Your task to perform on an android device: toggle airplane mode Image 0: 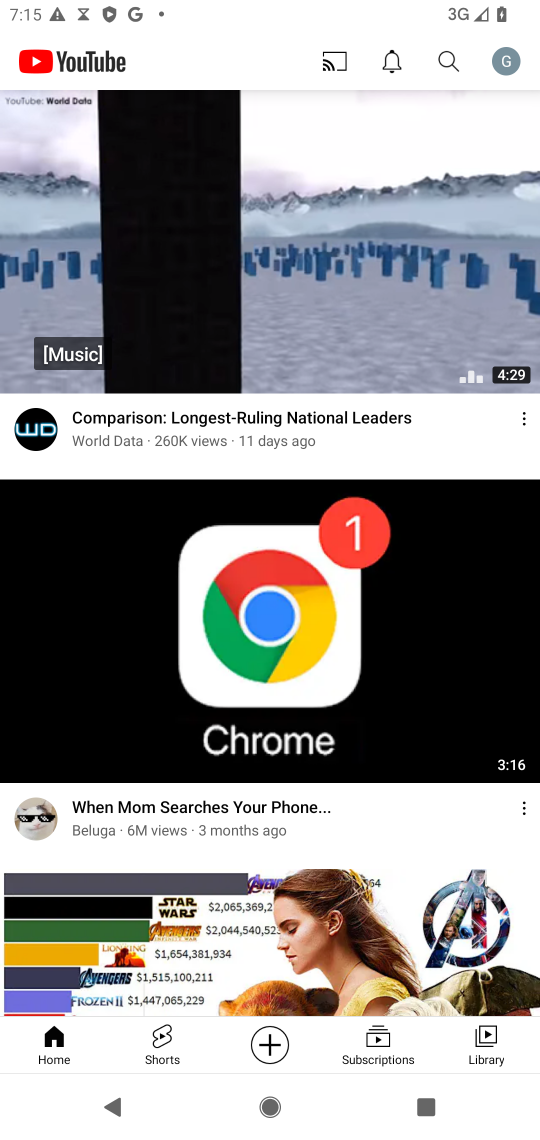
Step 0: press home button
Your task to perform on an android device: toggle airplane mode Image 1: 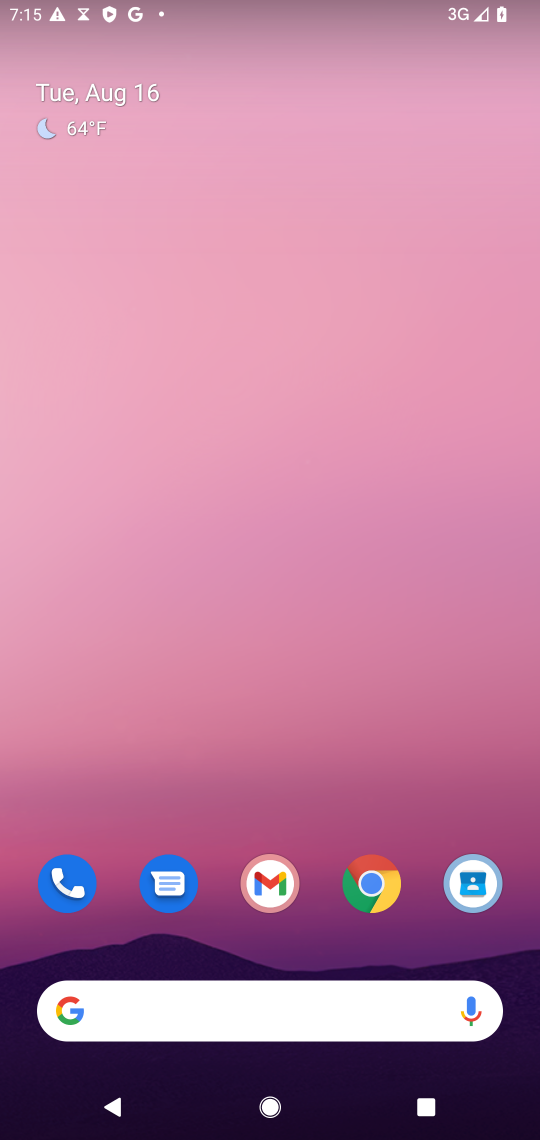
Step 1: drag from (186, 1003) to (323, 219)
Your task to perform on an android device: toggle airplane mode Image 2: 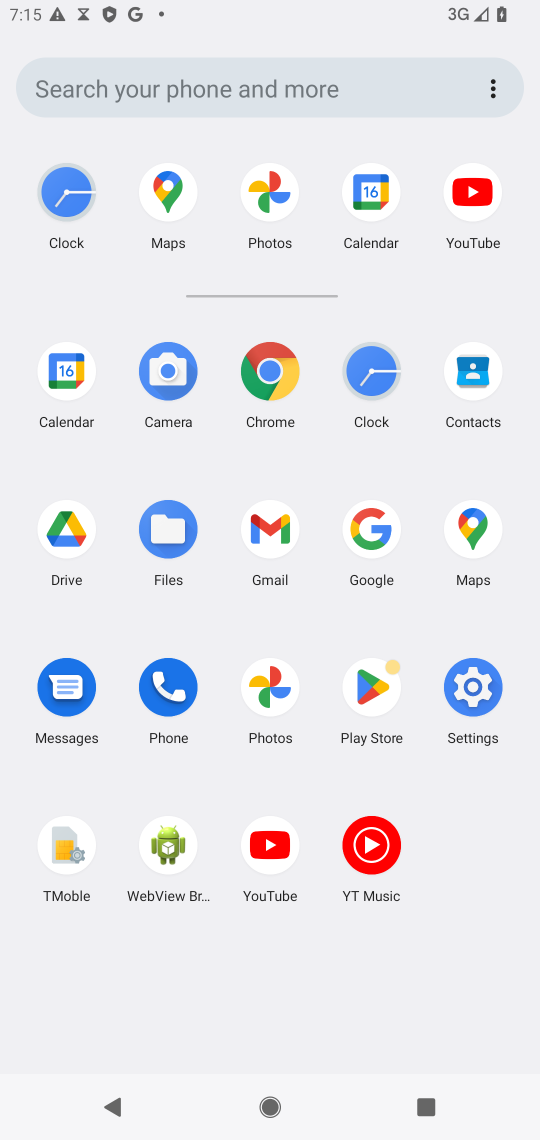
Step 2: click (471, 689)
Your task to perform on an android device: toggle airplane mode Image 3: 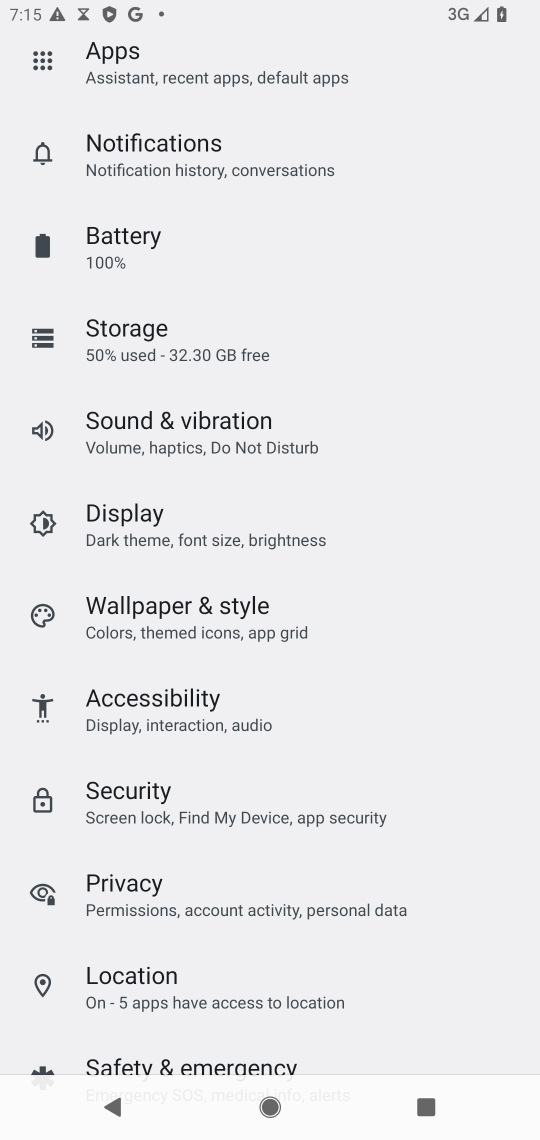
Step 3: drag from (316, 377) to (335, 506)
Your task to perform on an android device: toggle airplane mode Image 4: 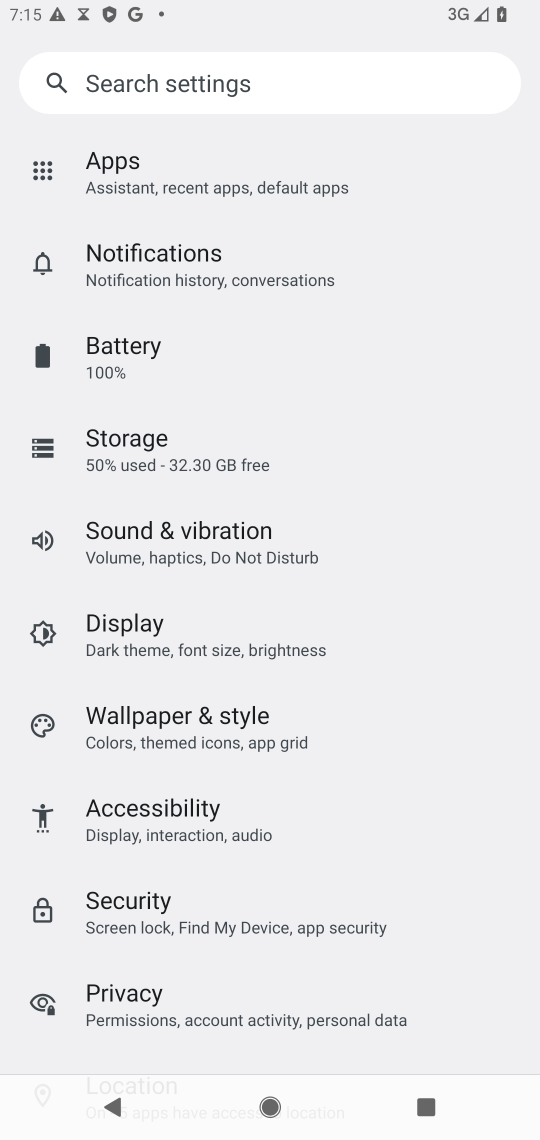
Step 4: drag from (293, 407) to (295, 619)
Your task to perform on an android device: toggle airplane mode Image 5: 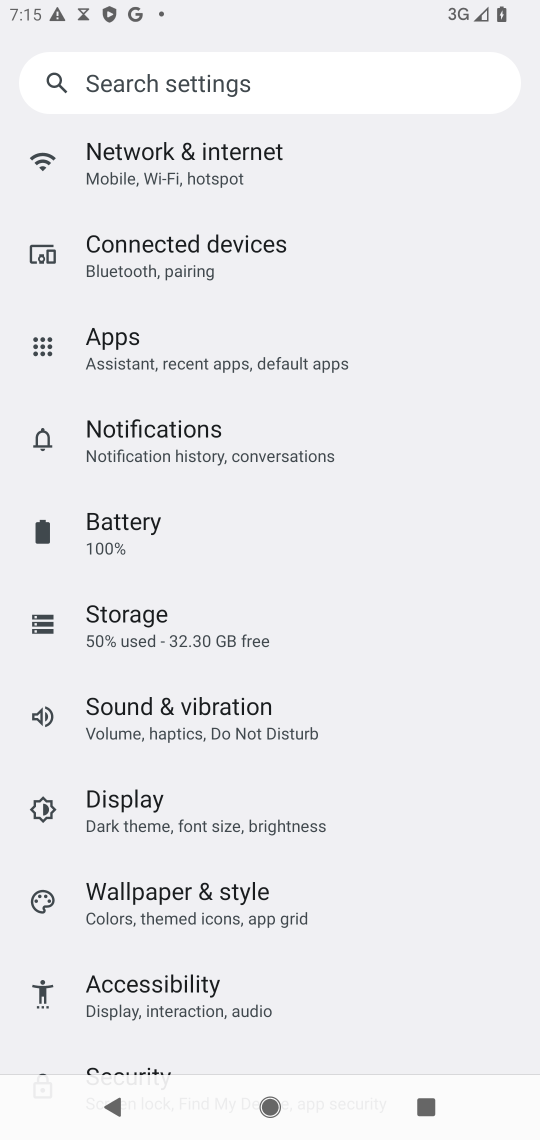
Step 5: drag from (287, 410) to (370, 661)
Your task to perform on an android device: toggle airplane mode Image 6: 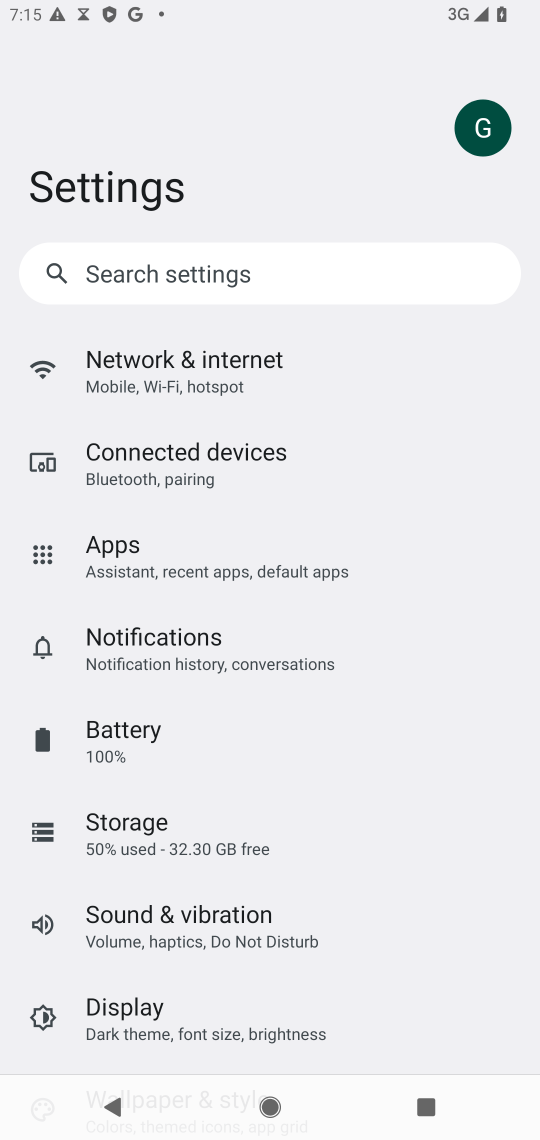
Step 6: click (202, 376)
Your task to perform on an android device: toggle airplane mode Image 7: 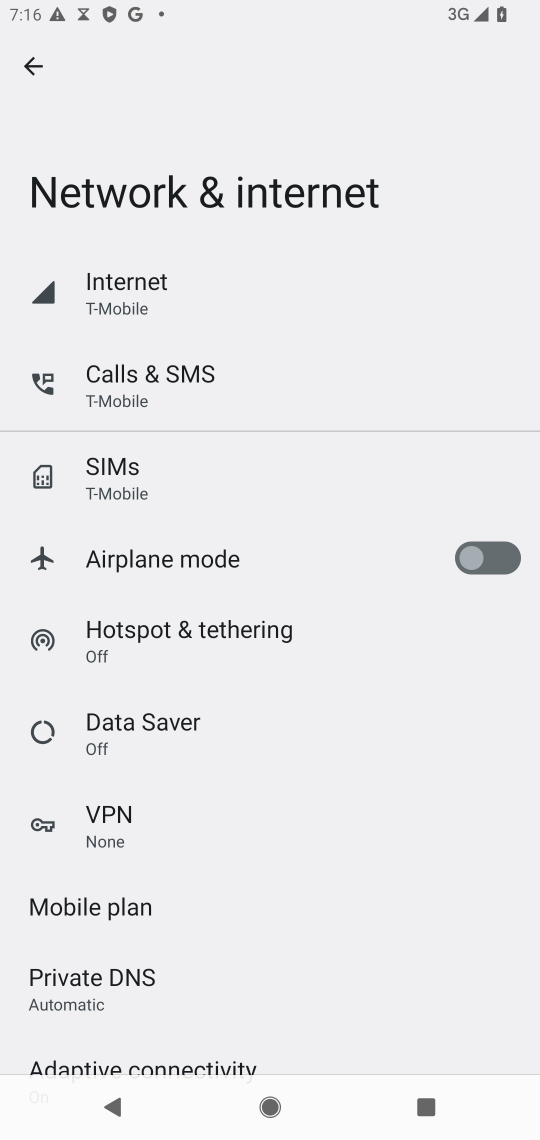
Step 7: click (488, 568)
Your task to perform on an android device: toggle airplane mode Image 8: 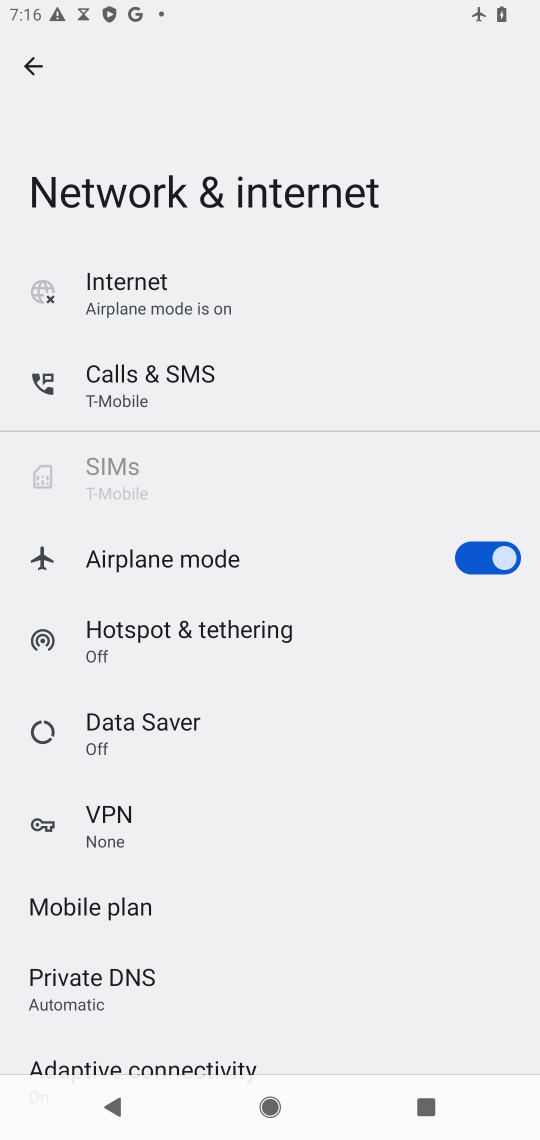
Step 8: task complete